Your task to perform on an android device: Open the calendar and show me this week's events? Image 0: 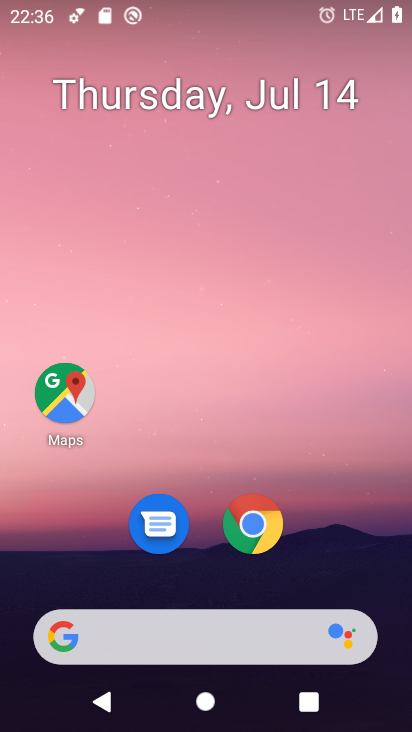
Step 0: drag from (314, 567) to (355, 43)
Your task to perform on an android device: Open the calendar and show me this week's events? Image 1: 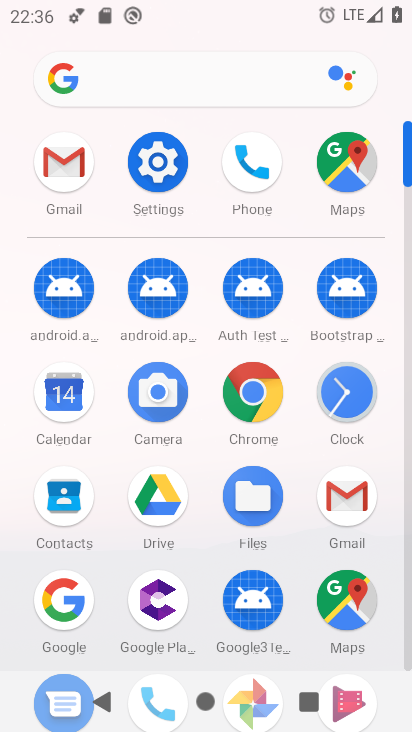
Step 1: click (75, 395)
Your task to perform on an android device: Open the calendar and show me this week's events? Image 2: 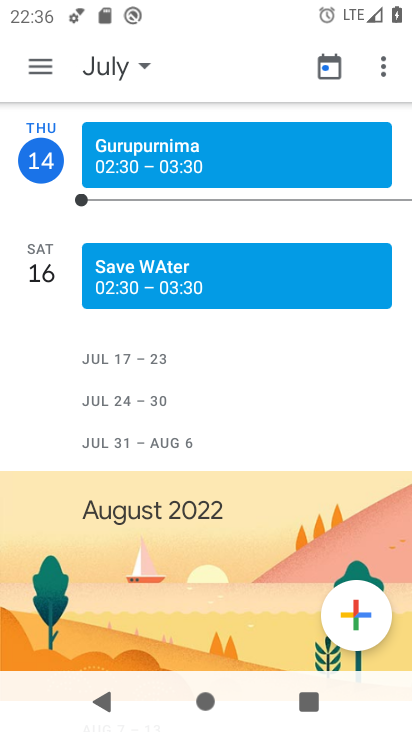
Step 2: click (42, 66)
Your task to perform on an android device: Open the calendar and show me this week's events? Image 3: 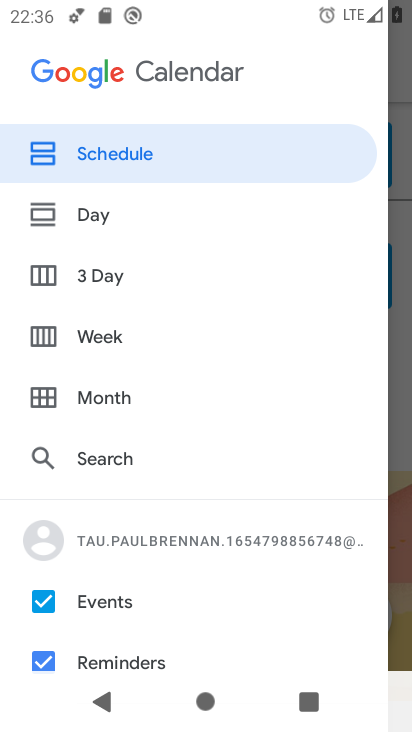
Step 3: click (42, 329)
Your task to perform on an android device: Open the calendar and show me this week's events? Image 4: 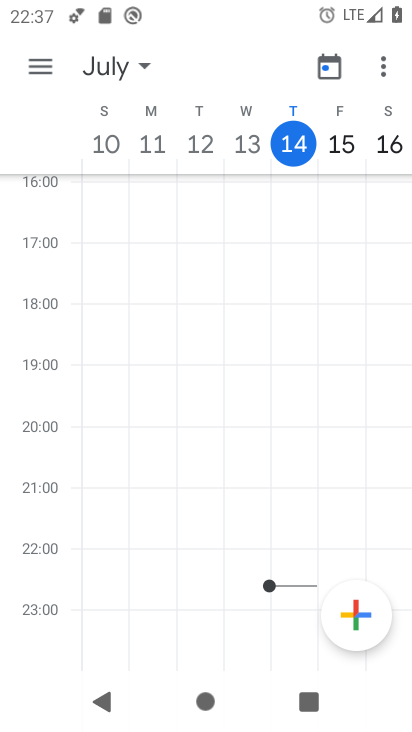
Step 4: task complete